Your task to perform on an android device: set the stopwatch Image 0: 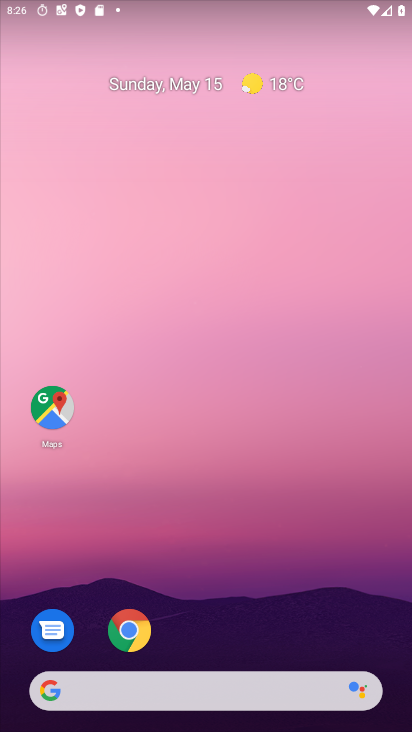
Step 0: drag from (205, 619) to (242, 5)
Your task to perform on an android device: set the stopwatch Image 1: 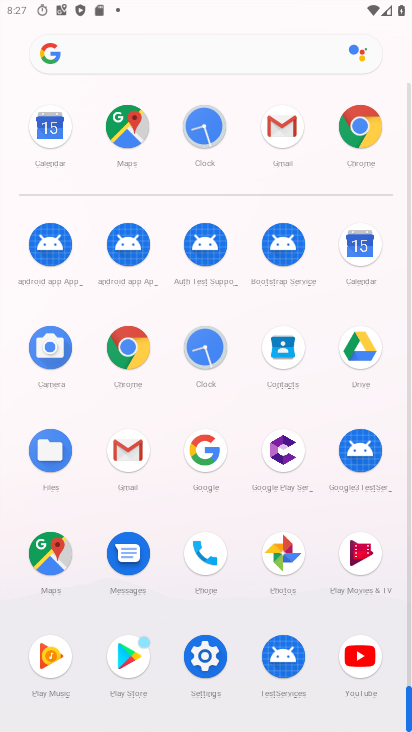
Step 1: click (207, 351)
Your task to perform on an android device: set the stopwatch Image 2: 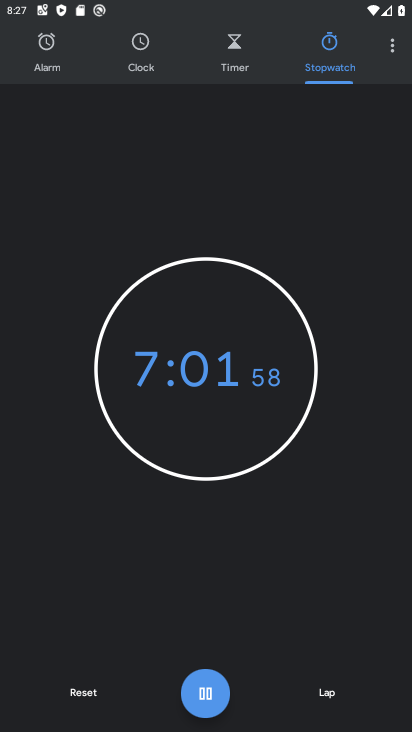
Step 2: click (64, 682)
Your task to perform on an android device: set the stopwatch Image 3: 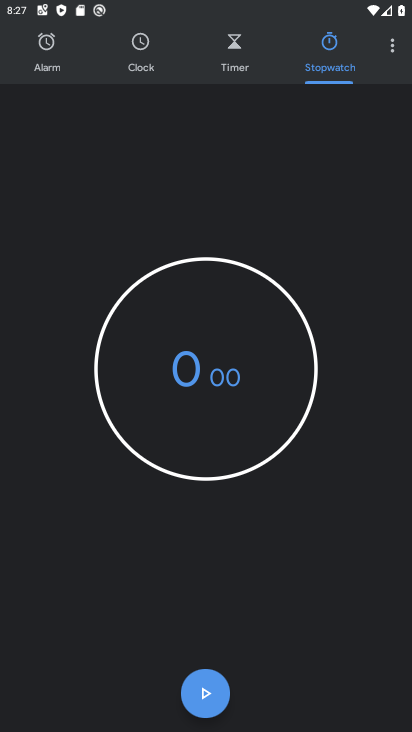
Step 3: click (217, 704)
Your task to perform on an android device: set the stopwatch Image 4: 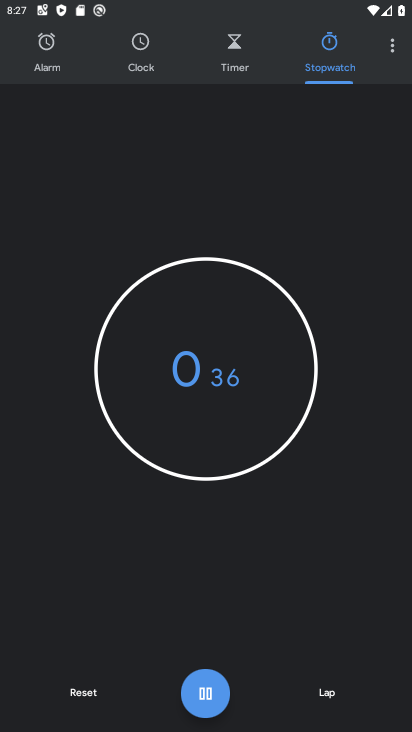
Step 4: task complete